Your task to perform on an android device: turn pop-ups on in chrome Image 0: 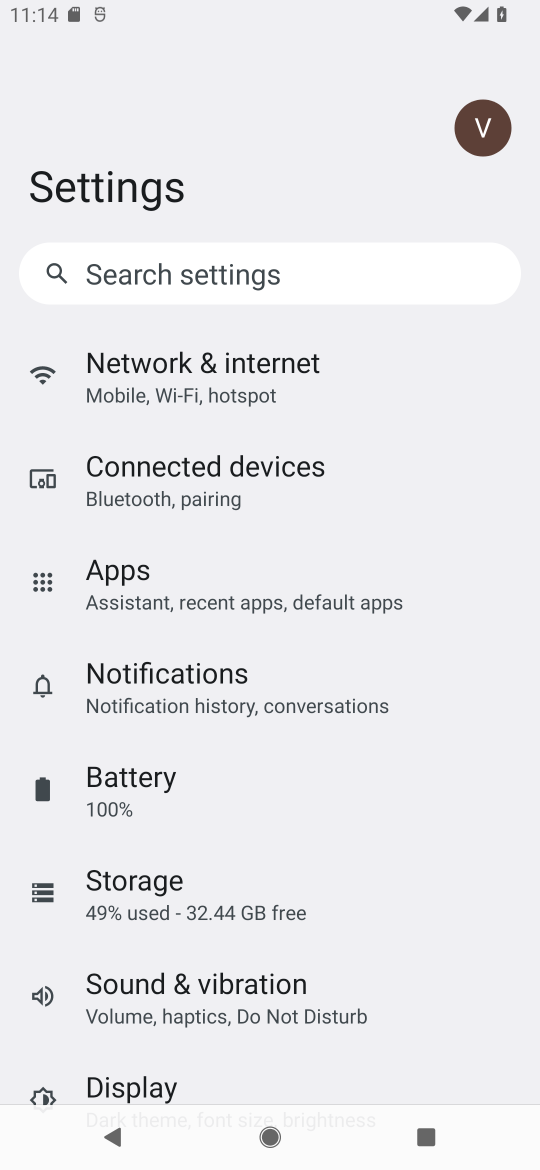
Step 0: press home button
Your task to perform on an android device: turn pop-ups on in chrome Image 1: 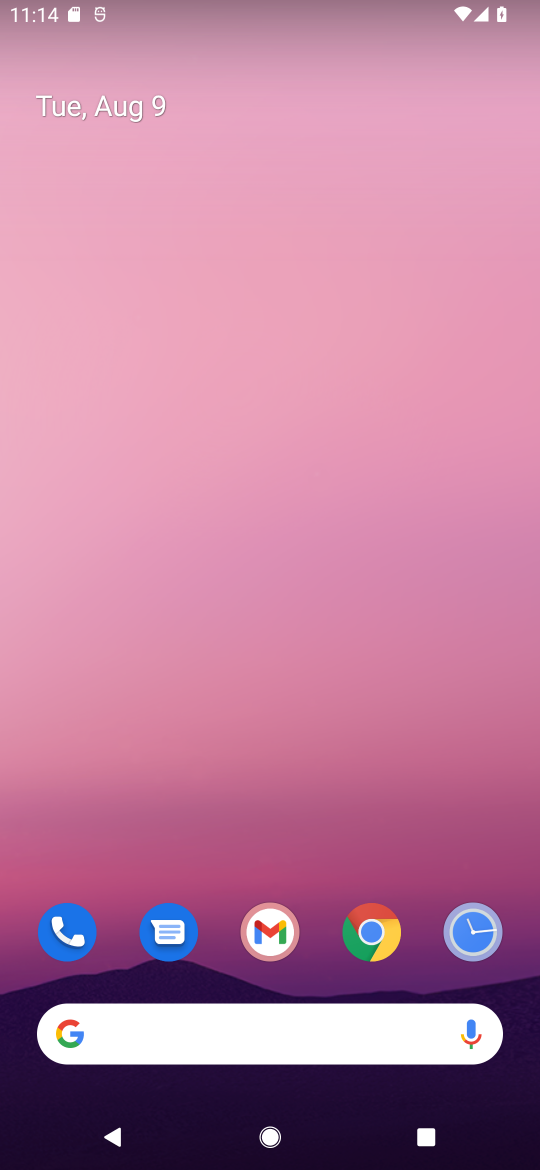
Step 1: drag from (216, 921) to (219, 258)
Your task to perform on an android device: turn pop-ups on in chrome Image 2: 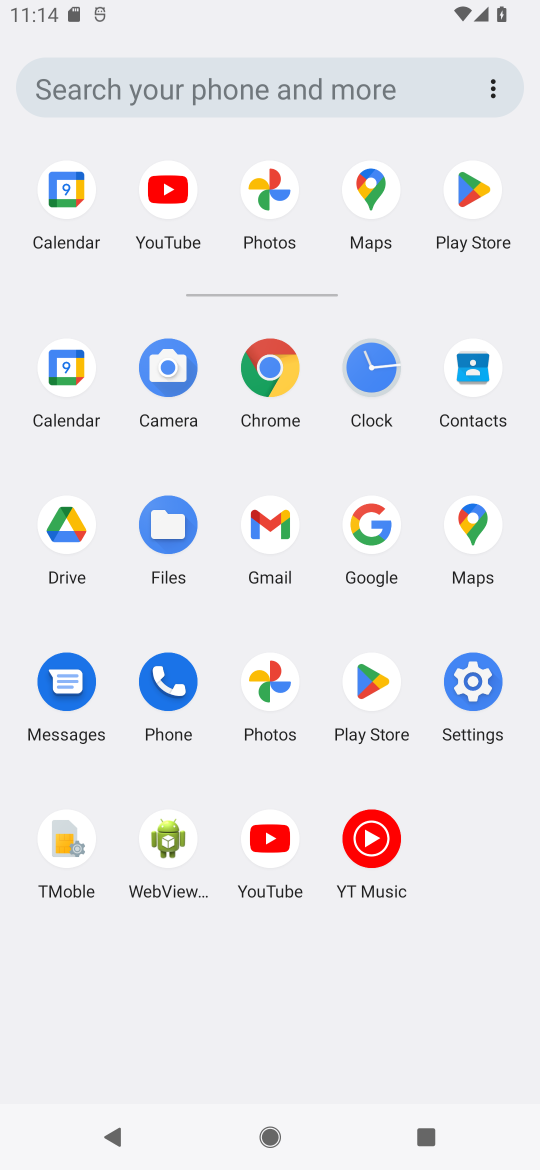
Step 2: click (268, 364)
Your task to perform on an android device: turn pop-ups on in chrome Image 3: 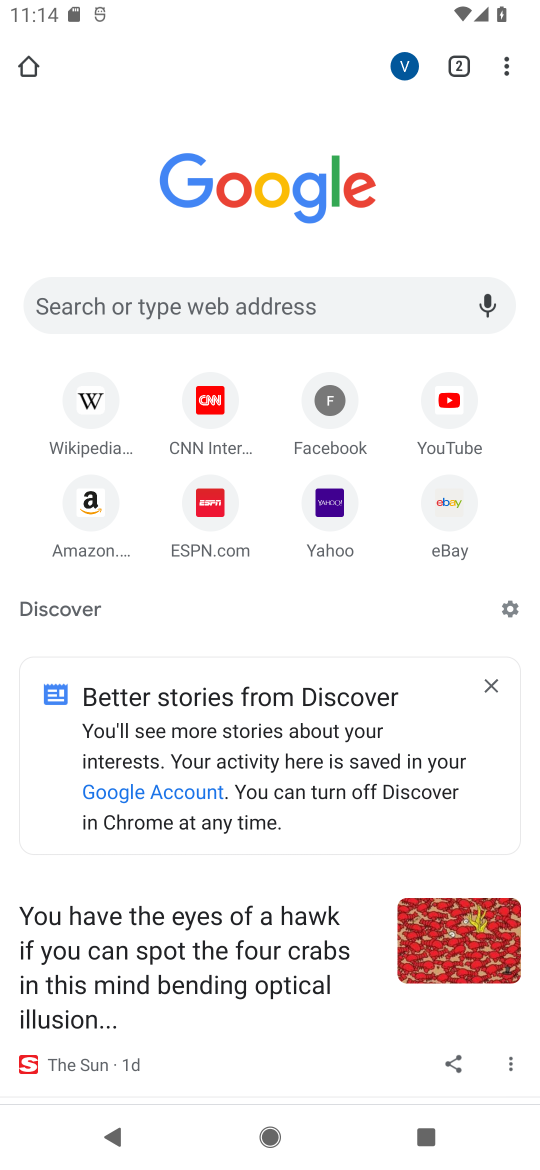
Step 3: click (501, 61)
Your task to perform on an android device: turn pop-ups on in chrome Image 4: 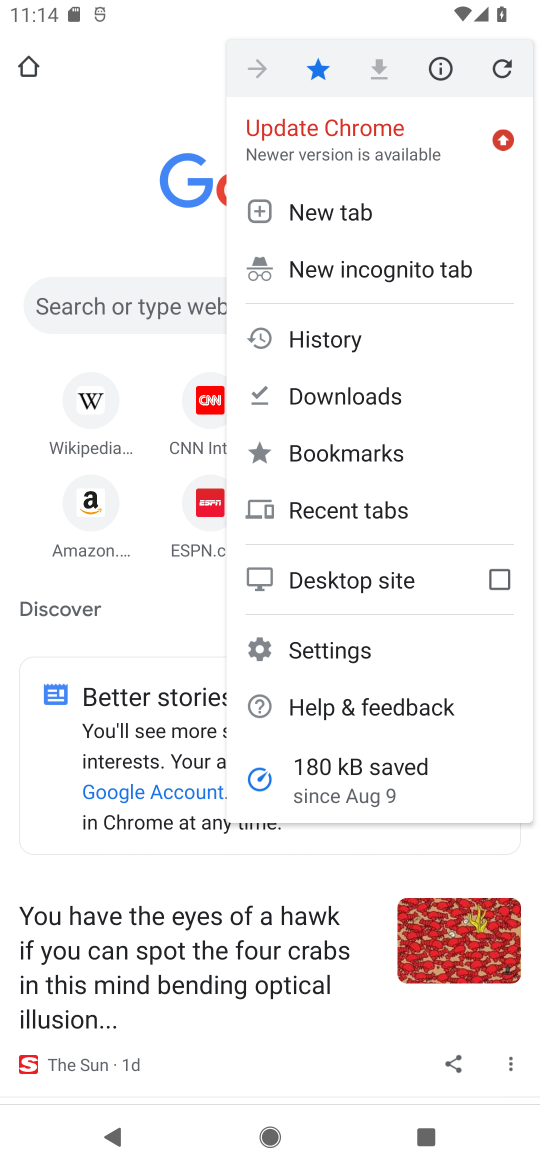
Step 4: click (321, 645)
Your task to perform on an android device: turn pop-ups on in chrome Image 5: 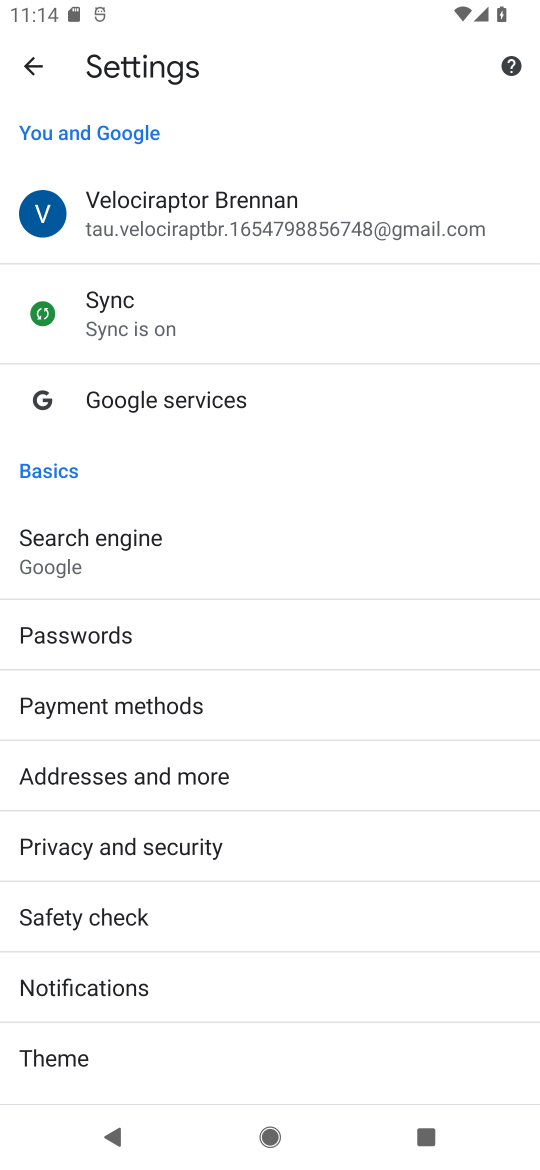
Step 5: drag from (237, 855) to (285, 508)
Your task to perform on an android device: turn pop-ups on in chrome Image 6: 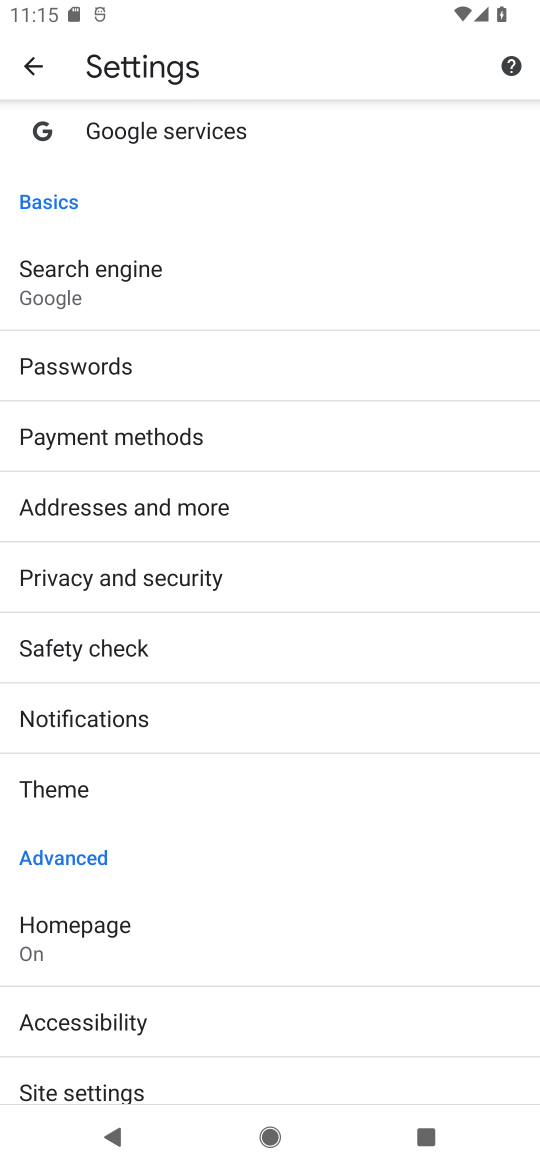
Step 6: drag from (179, 886) to (243, 414)
Your task to perform on an android device: turn pop-ups on in chrome Image 7: 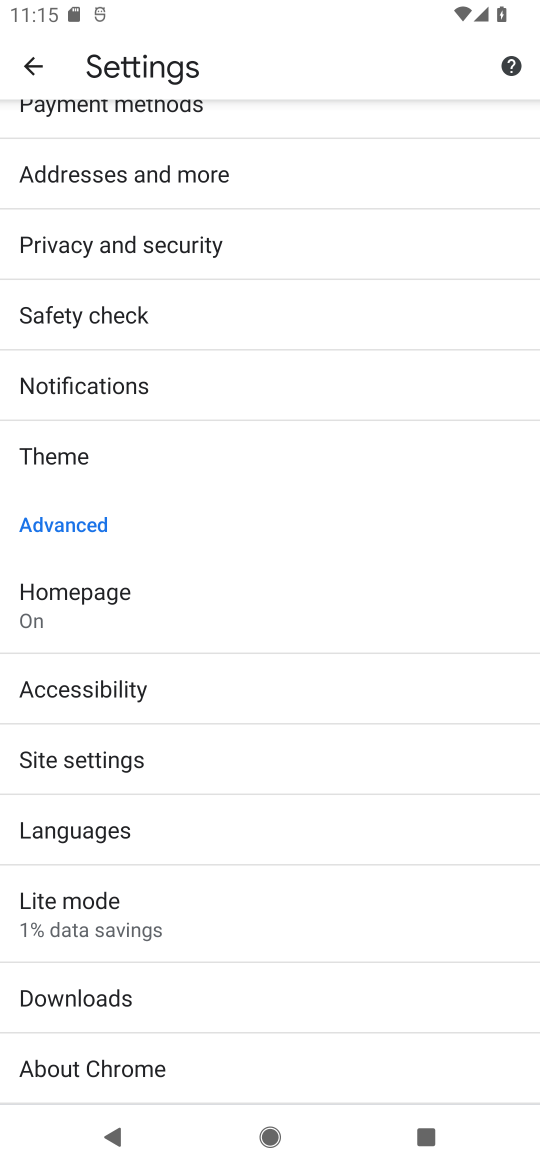
Step 7: click (84, 756)
Your task to perform on an android device: turn pop-ups on in chrome Image 8: 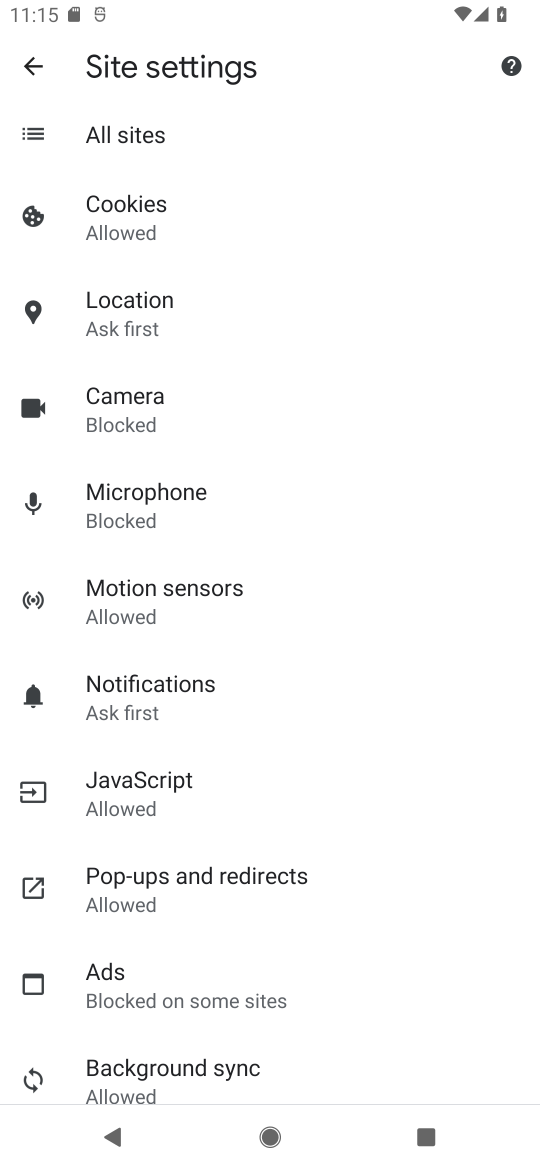
Step 8: click (166, 878)
Your task to perform on an android device: turn pop-ups on in chrome Image 9: 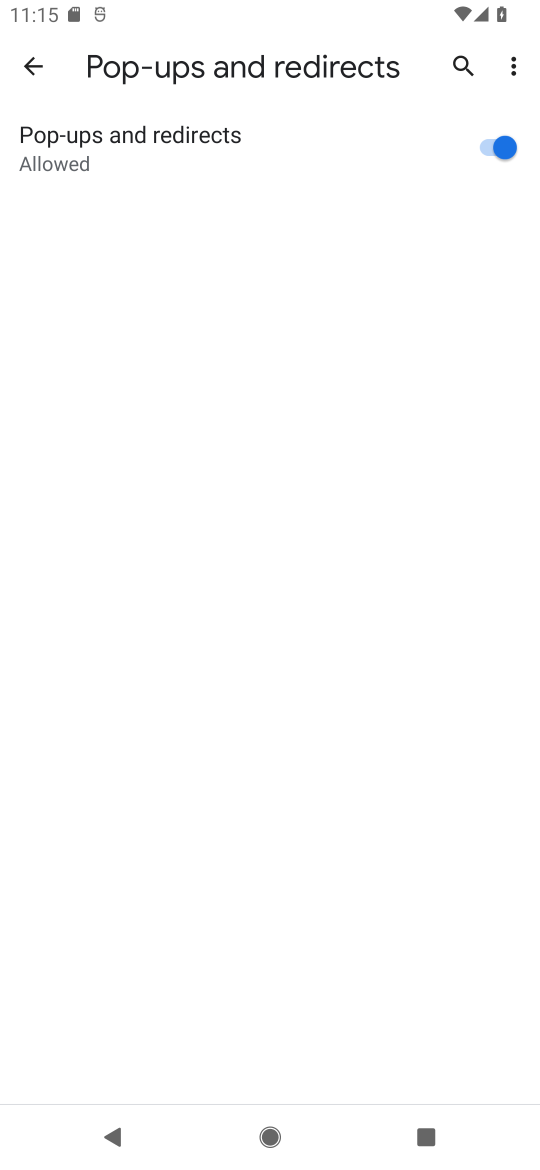
Step 9: task complete